Your task to perform on an android device: check android version Image 0: 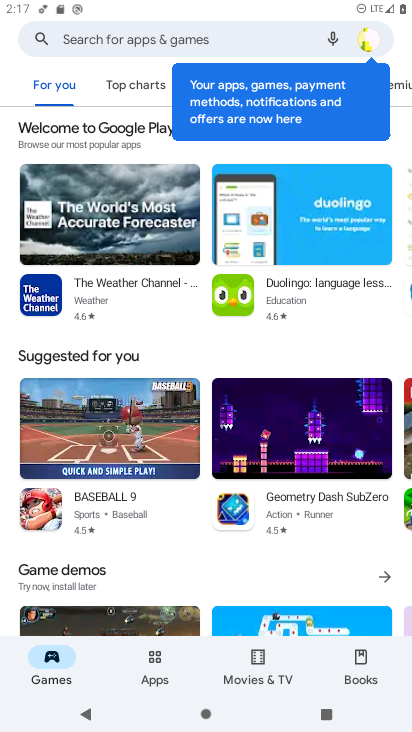
Step 0: press home button
Your task to perform on an android device: check android version Image 1: 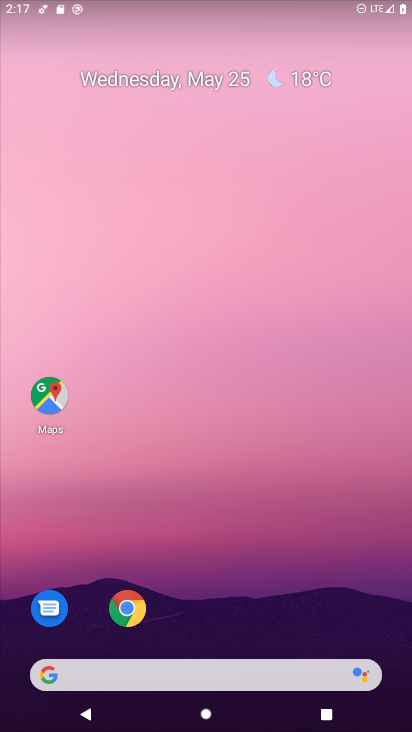
Step 1: drag from (361, 633) to (315, 106)
Your task to perform on an android device: check android version Image 2: 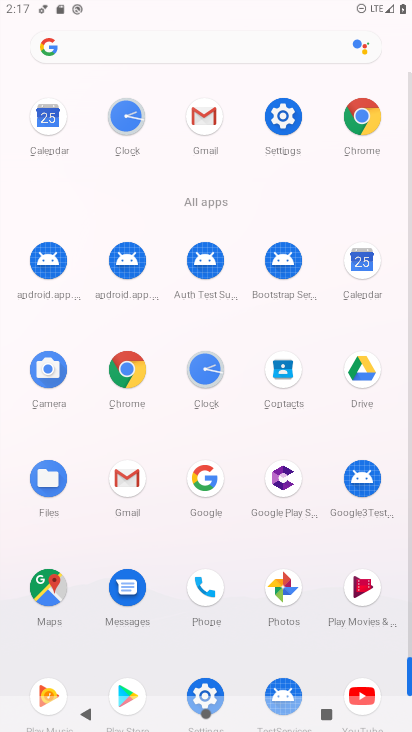
Step 2: click (203, 690)
Your task to perform on an android device: check android version Image 3: 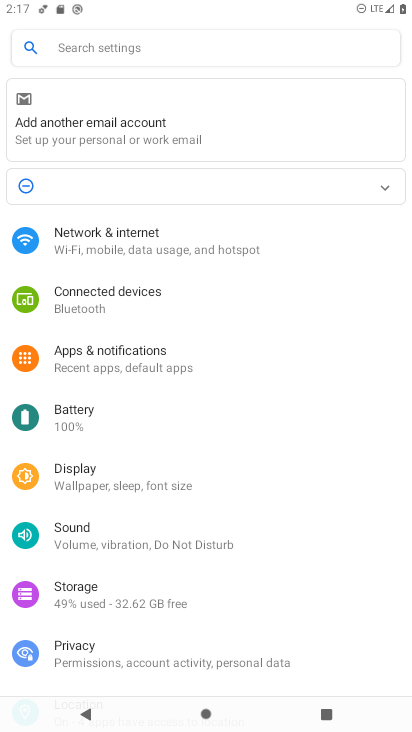
Step 3: drag from (290, 606) to (258, 133)
Your task to perform on an android device: check android version Image 4: 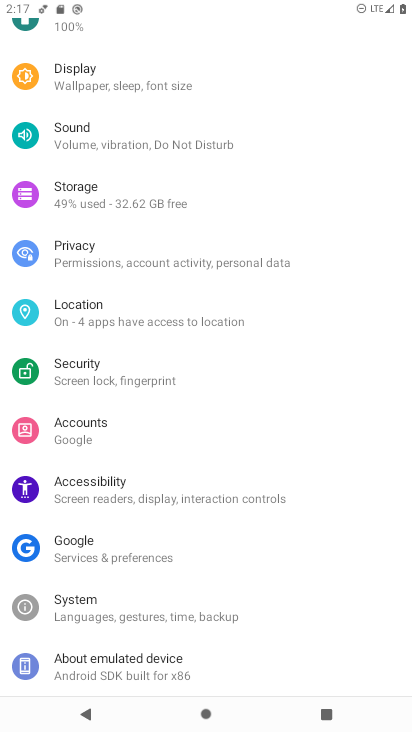
Step 4: drag from (281, 555) to (286, 160)
Your task to perform on an android device: check android version Image 5: 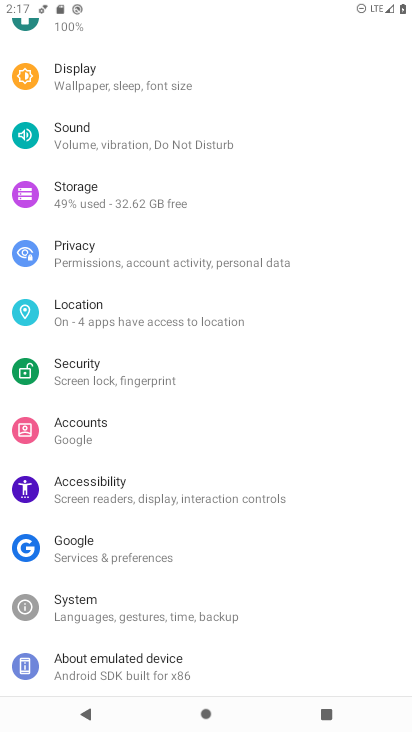
Step 5: click (142, 648)
Your task to perform on an android device: check android version Image 6: 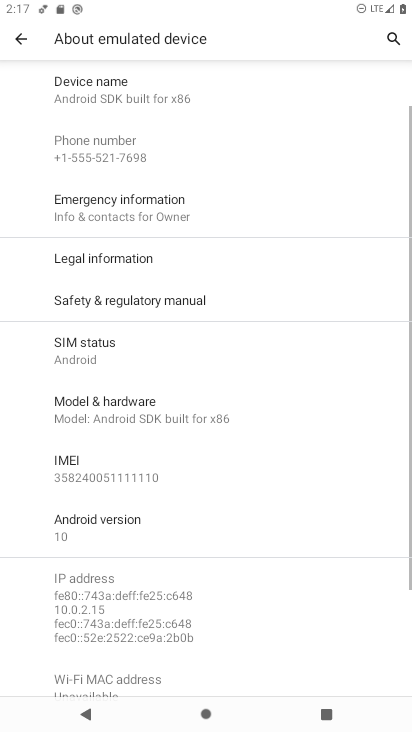
Step 6: drag from (293, 639) to (291, 481)
Your task to perform on an android device: check android version Image 7: 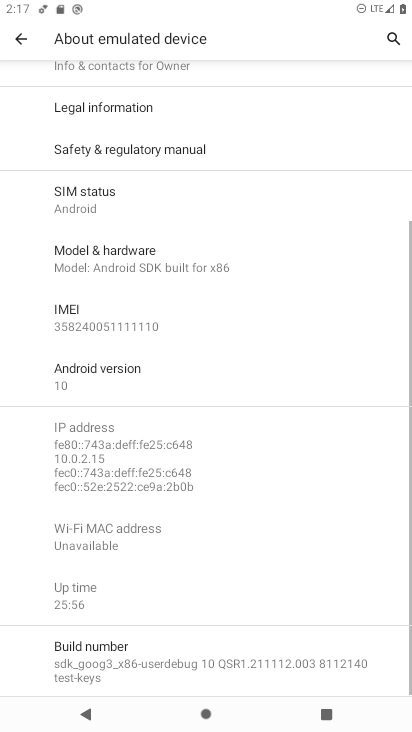
Step 7: click (86, 363)
Your task to perform on an android device: check android version Image 8: 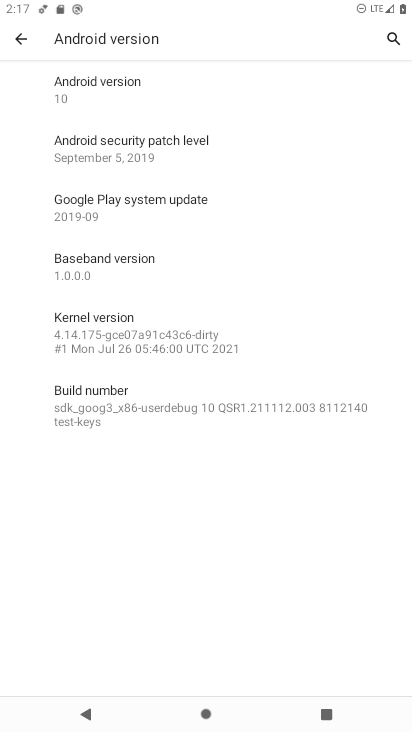
Step 8: click (87, 85)
Your task to perform on an android device: check android version Image 9: 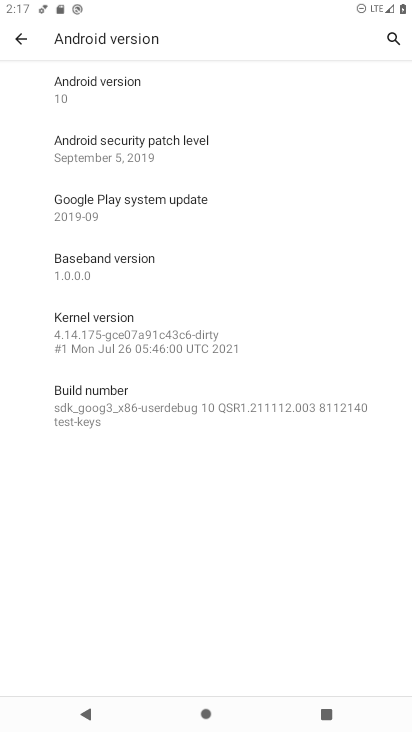
Step 9: task complete